Your task to perform on an android device: create a new album in the google photos Image 0: 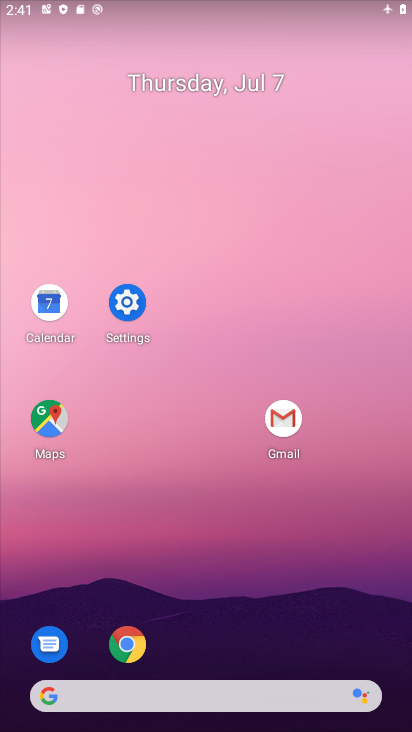
Step 0: drag from (396, 684) to (334, 119)
Your task to perform on an android device: create a new album in the google photos Image 1: 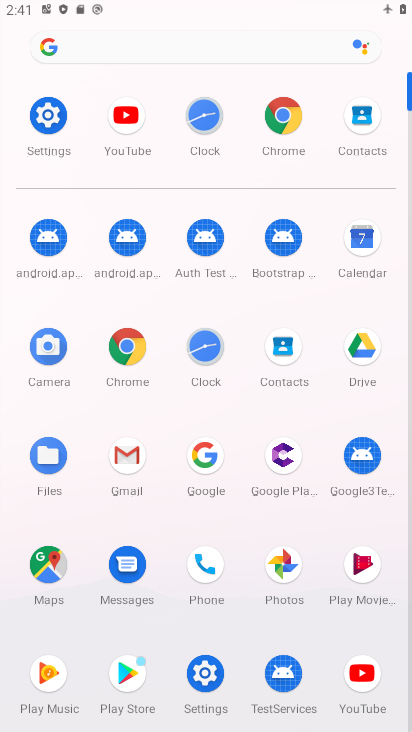
Step 1: click (290, 560)
Your task to perform on an android device: create a new album in the google photos Image 2: 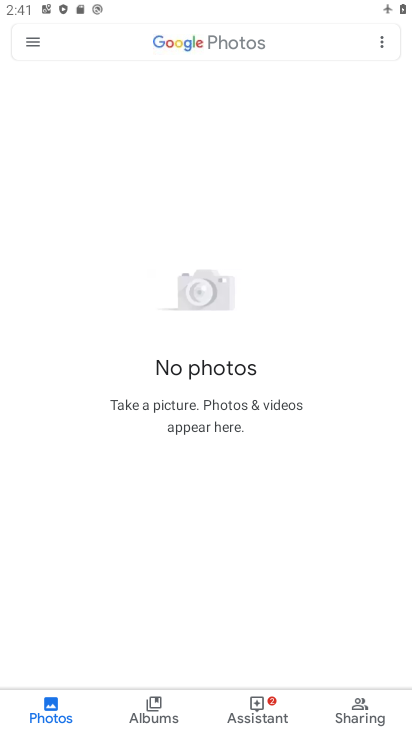
Step 2: task complete